Your task to perform on an android device: open app "Walmart Shopping & Grocery" (install if not already installed), go to login, and select forgot password Image 0: 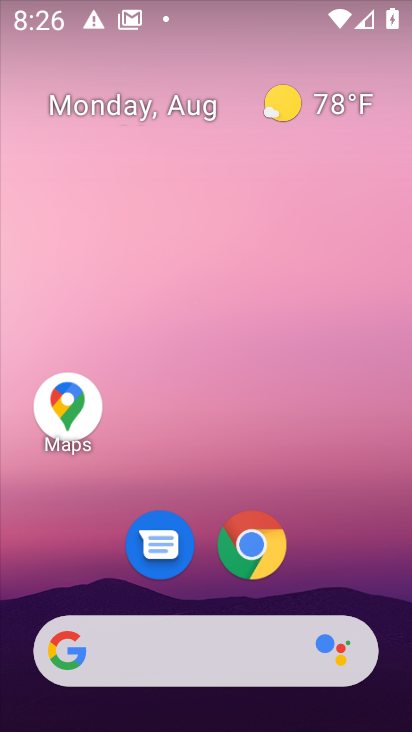
Step 0: press home button
Your task to perform on an android device: open app "Walmart Shopping & Grocery" (install if not already installed), go to login, and select forgot password Image 1: 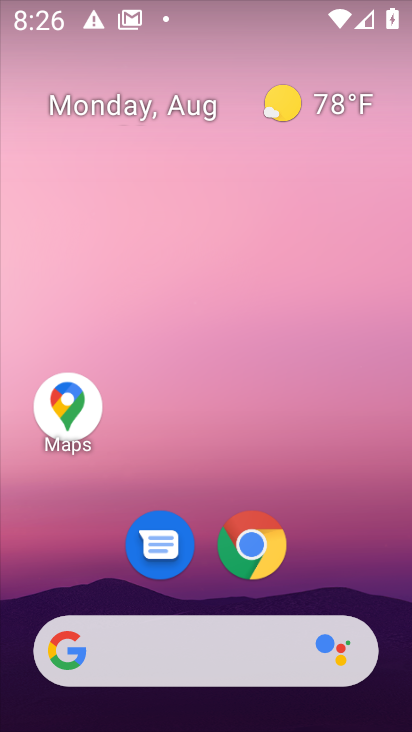
Step 1: press home button
Your task to perform on an android device: open app "Walmart Shopping & Grocery" (install if not already installed), go to login, and select forgot password Image 2: 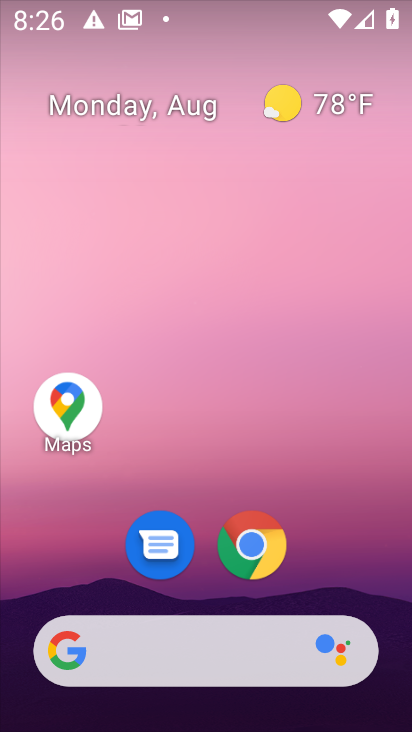
Step 2: drag from (346, 565) to (367, 239)
Your task to perform on an android device: open app "Walmart Shopping & Grocery" (install if not already installed), go to login, and select forgot password Image 3: 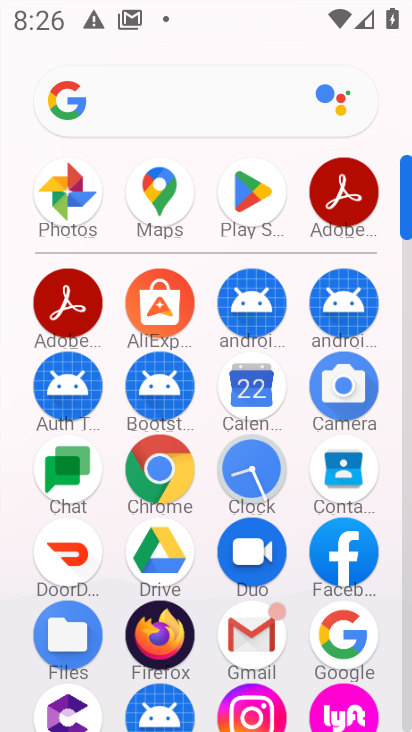
Step 3: click (262, 198)
Your task to perform on an android device: open app "Walmart Shopping & Grocery" (install if not already installed), go to login, and select forgot password Image 4: 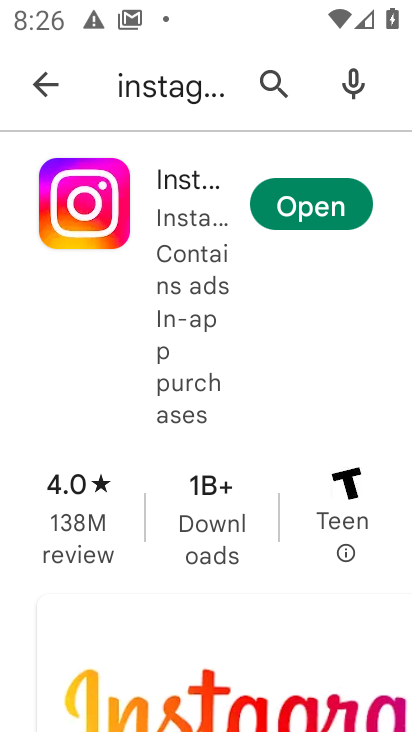
Step 4: press back button
Your task to perform on an android device: open app "Walmart Shopping & Grocery" (install if not already installed), go to login, and select forgot password Image 5: 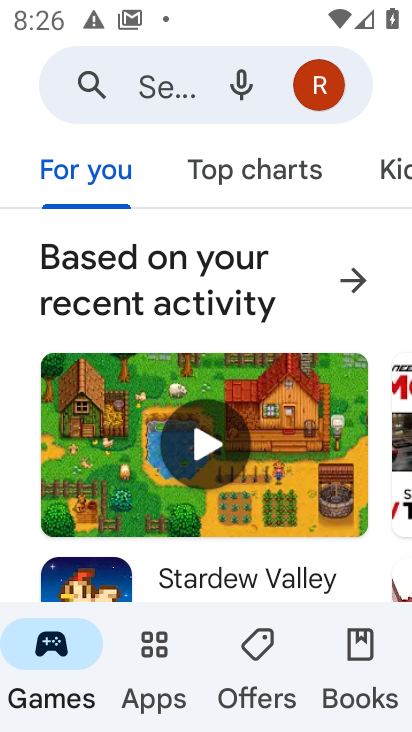
Step 5: click (191, 99)
Your task to perform on an android device: open app "Walmart Shopping & Grocery" (install if not already installed), go to login, and select forgot password Image 6: 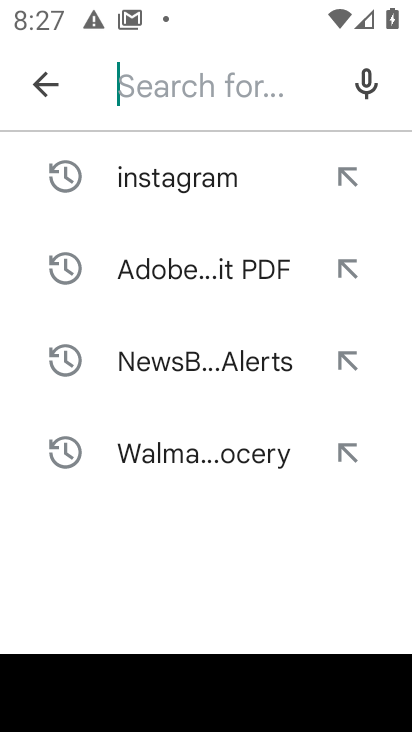
Step 6: type "Walmart Shopping & Grocery"
Your task to perform on an android device: open app "Walmart Shopping & Grocery" (install if not already installed), go to login, and select forgot password Image 7: 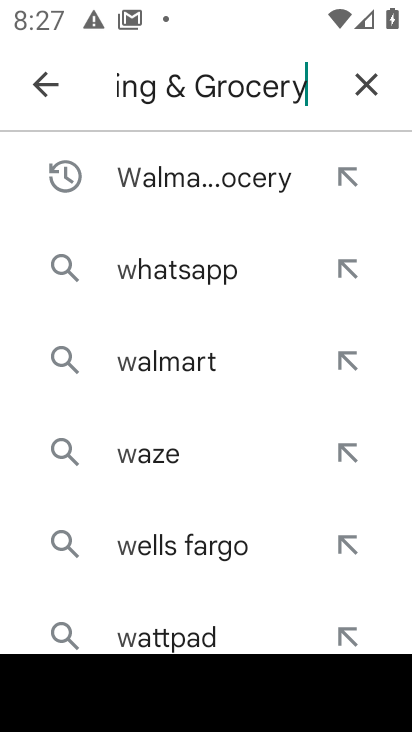
Step 7: press enter
Your task to perform on an android device: open app "Walmart Shopping & Grocery" (install if not already installed), go to login, and select forgot password Image 8: 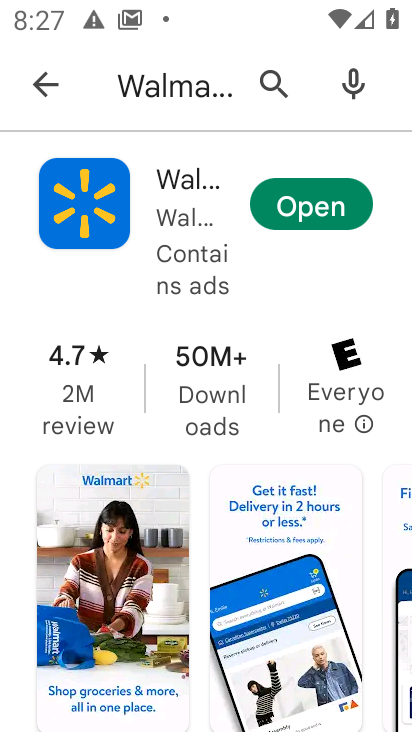
Step 8: click (323, 207)
Your task to perform on an android device: open app "Walmart Shopping & Grocery" (install if not already installed), go to login, and select forgot password Image 9: 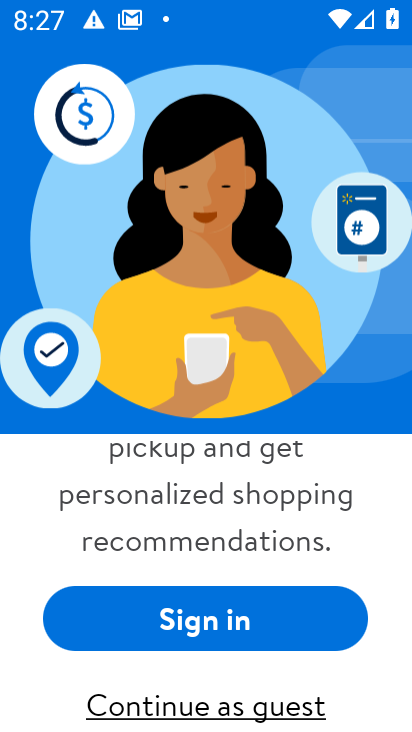
Step 9: drag from (365, 533) to (364, 288)
Your task to perform on an android device: open app "Walmart Shopping & Grocery" (install if not already installed), go to login, and select forgot password Image 10: 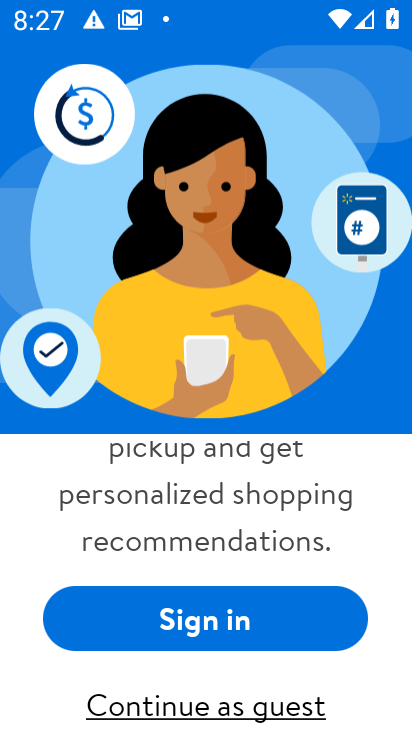
Step 10: click (284, 620)
Your task to perform on an android device: open app "Walmart Shopping & Grocery" (install if not already installed), go to login, and select forgot password Image 11: 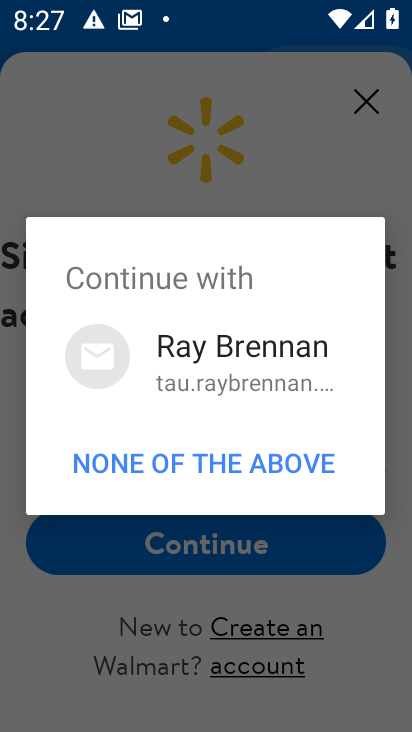
Step 11: click (226, 468)
Your task to perform on an android device: open app "Walmart Shopping & Grocery" (install if not already installed), go to login, and select forgot password Image 12: 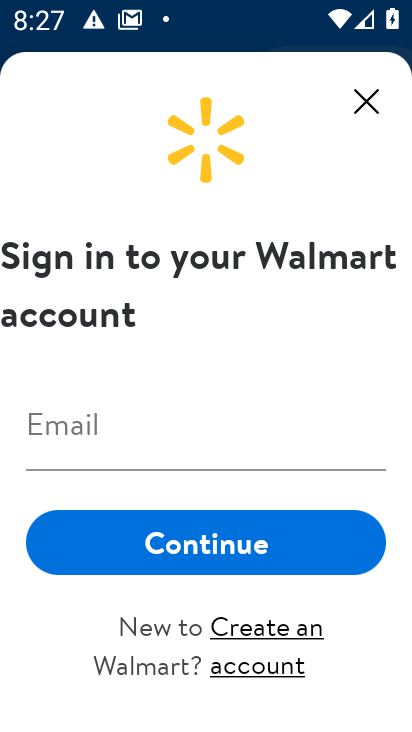
Step 12: task complete